Your task to perform on an android device: open a new tab in the chrome app Image 0: 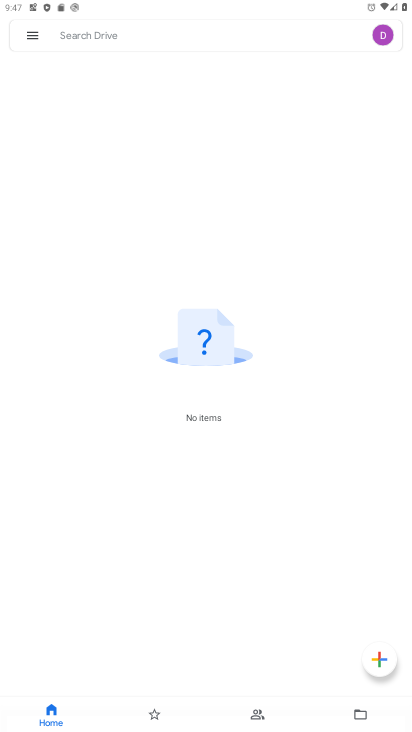
Step 0: press home button
Your task to perform on an android device: open a new tab in the chrome app Image 1: 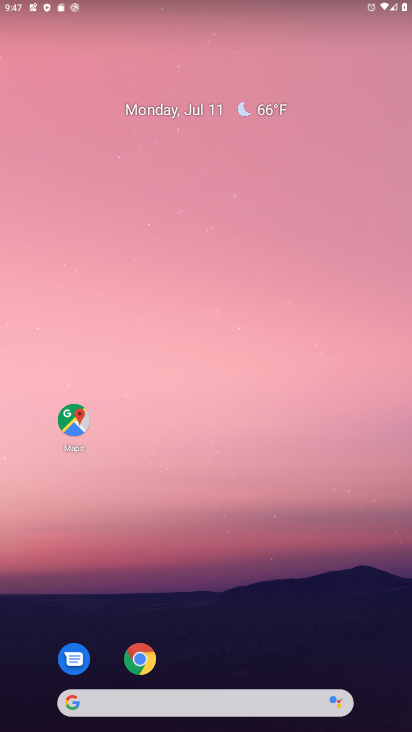
Step 1: drag from (355, 625) to (326, 200)
Your task to perform on an android device: open a new tab in the chrome app Image 2: 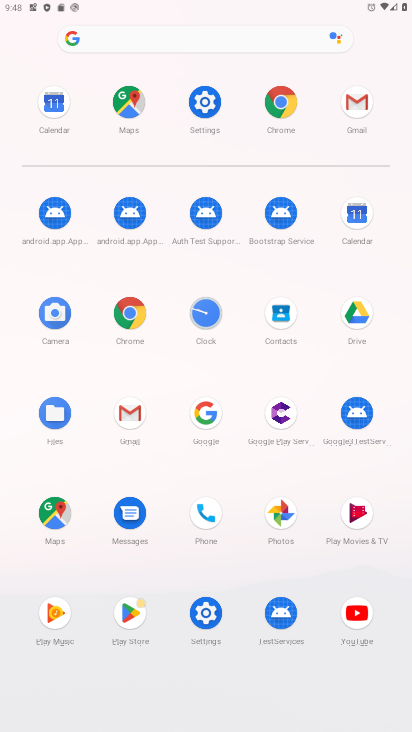
Step 2: click (134, 313)
Your task to perform on an android device: open a new tab in the chrome app Image 3: 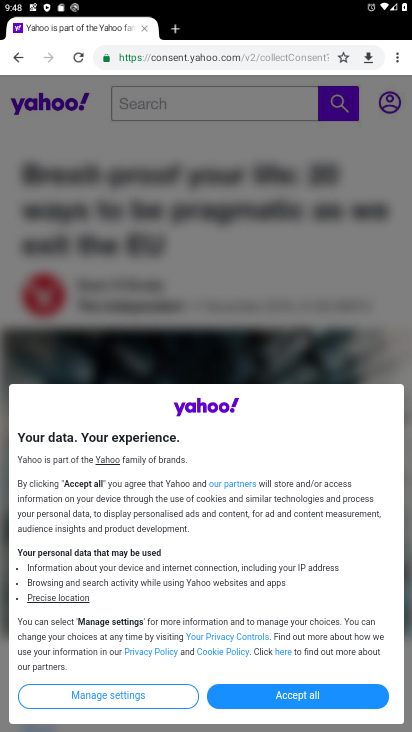
Step 3: click (399, 58)
Your task to perform on an android device: open a new tab in the chrome app Image 4: 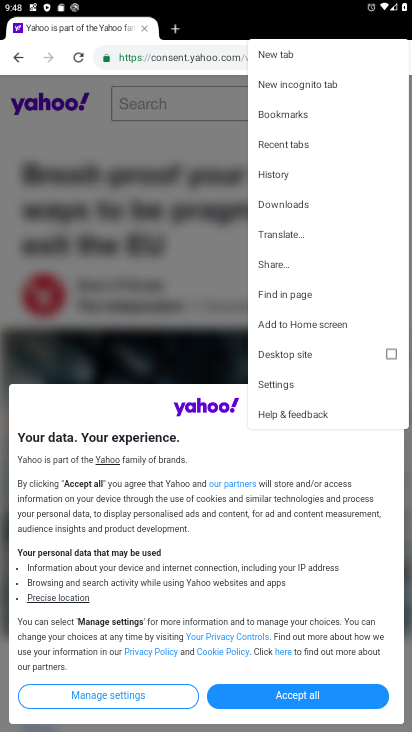
Step 4: click (296, 52)
Your task to perform on an android device: open a new tab in the chrome app Image 5: 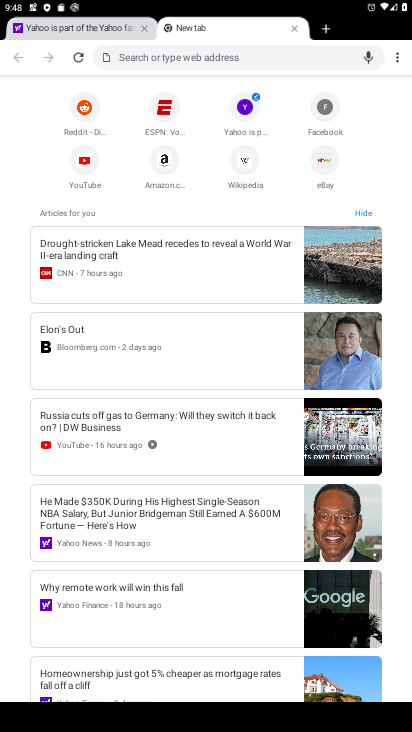
Step 5: task complete